Your task to perform on an android device: refresh tabs in the chrome app Image 0: 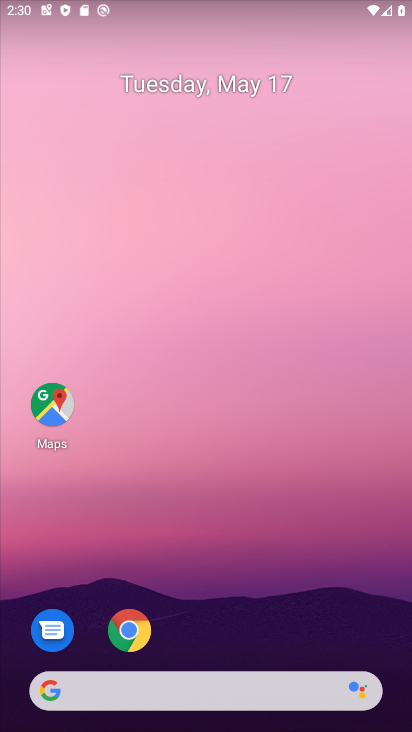
Step 0: drag from (207, 673) to (259, 281)
Your task to perform on an android device: refresh tabs in the chrome app Image 1: 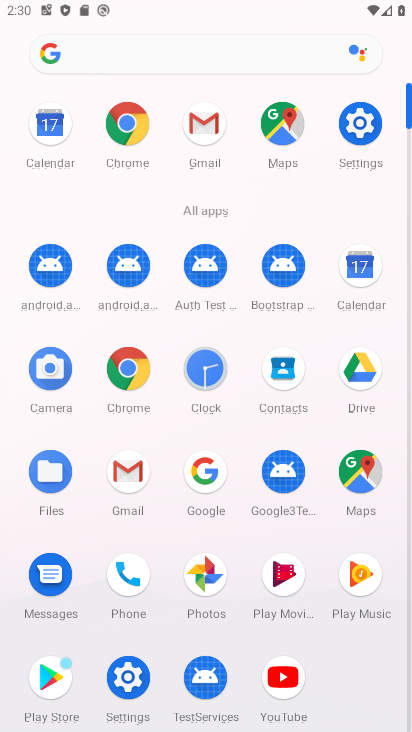
Step 1: click (129, 369)
Your task to perform on an android device: refresh tabs in the chrome app Image 2: 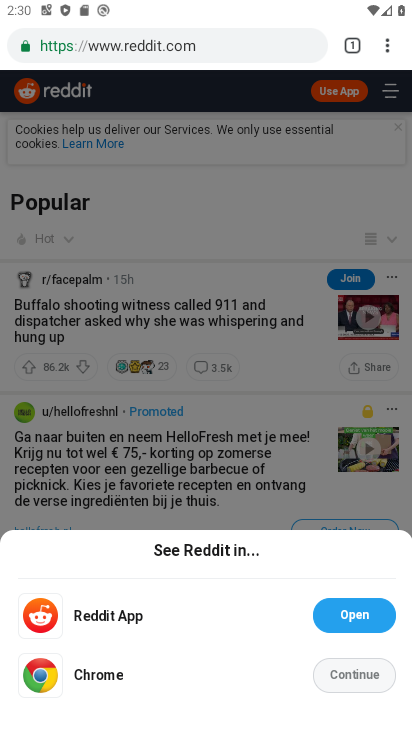
Step 2: click (390, 48)
Your task to perform on an android device: refresh tabs in the chrome app Image 3: 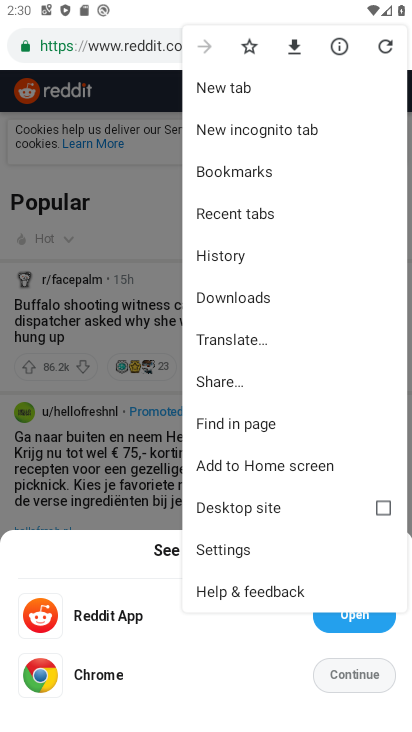
Step 3: click (387, 51)
Your task to perform on an android device: refresh tabs in the chrome app Image 4: 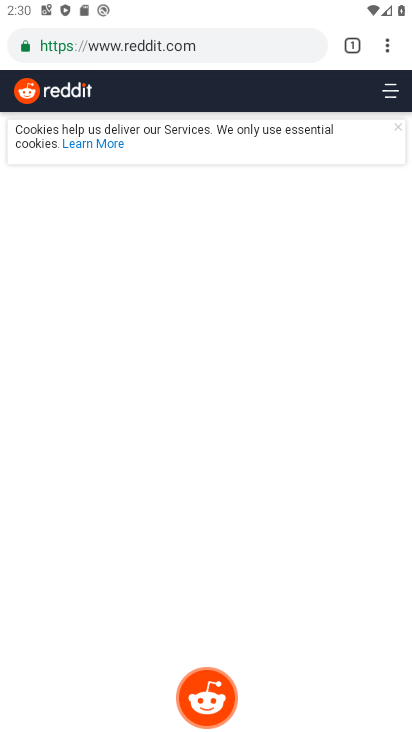
Step 4: task complete